Your task to perform on an android device: Go to Android settings Image 0: 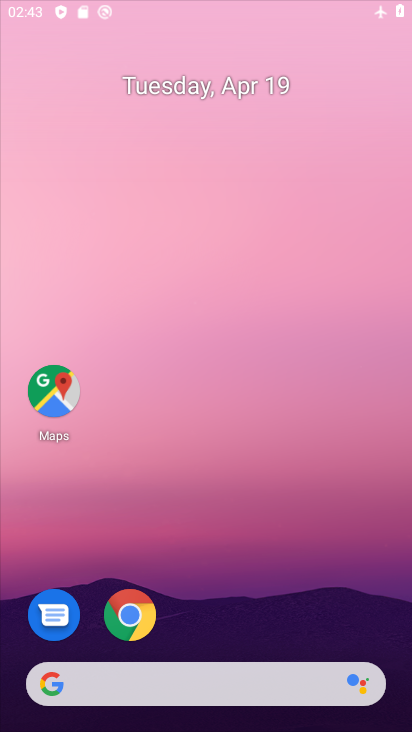
Step 0: click (265, 193)
Your task to perform on an android device: Go to Android settings Image 1: 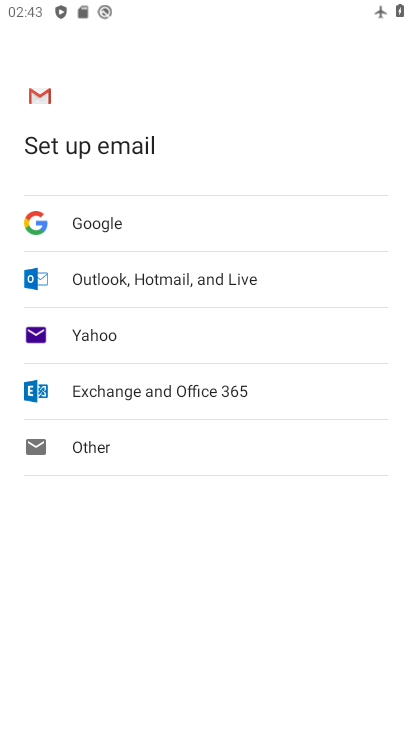
Step 1: press home button
Your task to perform on an android device: Go to Android settings Image 2: 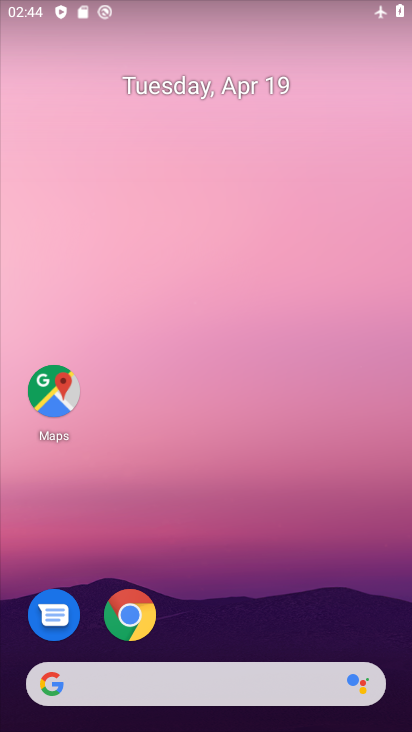
Step 2: click (296, 256)
Your task to perform on an android device: Go to Android settings Image 3: 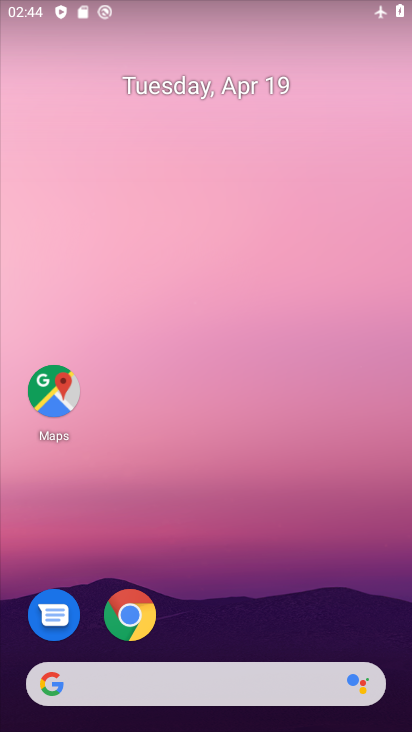
Step 3: drag from (250, 558) to (291, 155)
Your task to perform on an android device: Go to Android settings Image 4: 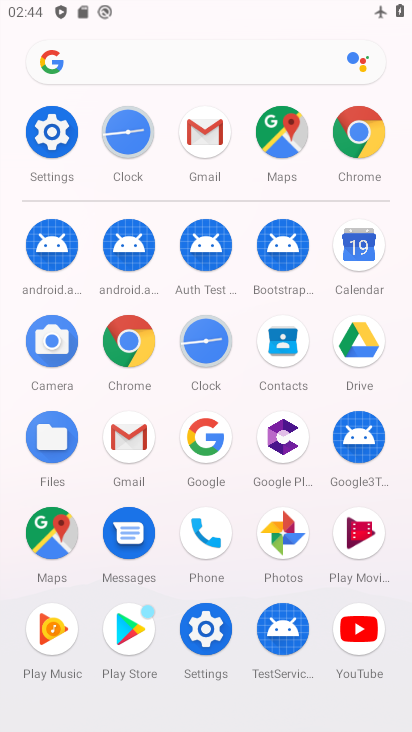
Step 4: click (57, 128)
Your task to perform on an android device: Go to Android settings Image 5: 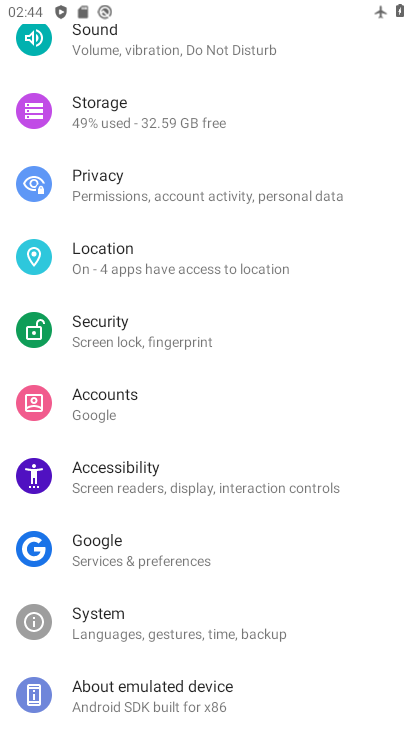
Step 5: click (116, 689)
Your task to perform on an android device: Go to Android settings Image 6: 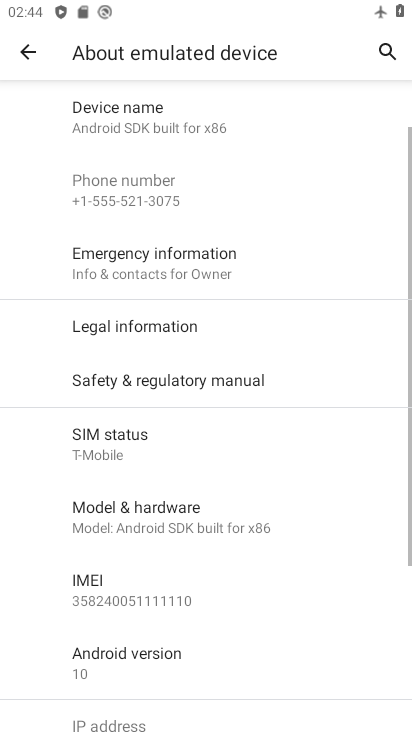
Step 6: drag from (127, 560) to (146, 240)
Your task to perform on an android device: Go to Android settings Image 7: 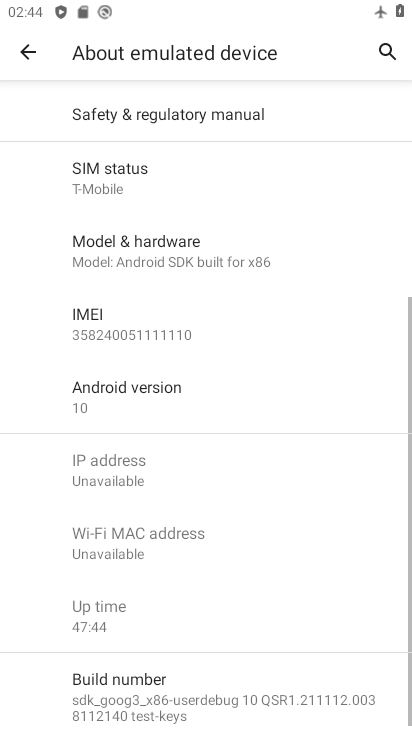
Step 7: click (149, 386)
Your task to perform on an android device: Go to Android settings Image 8: 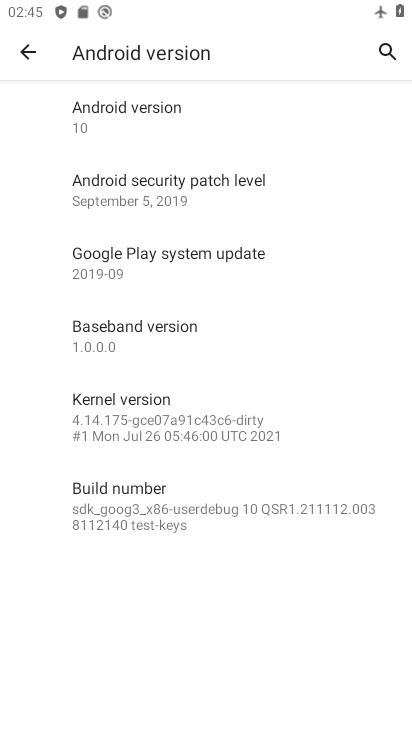
Step 8: task complete